Your task to perform on an android device: change keyboard looks Image 0: 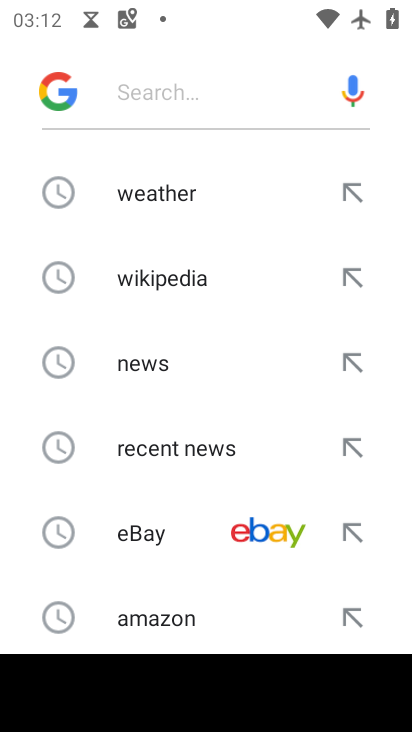
Step 0: press home button
Your task to perform on an android device: change keyboard looks Image 1: 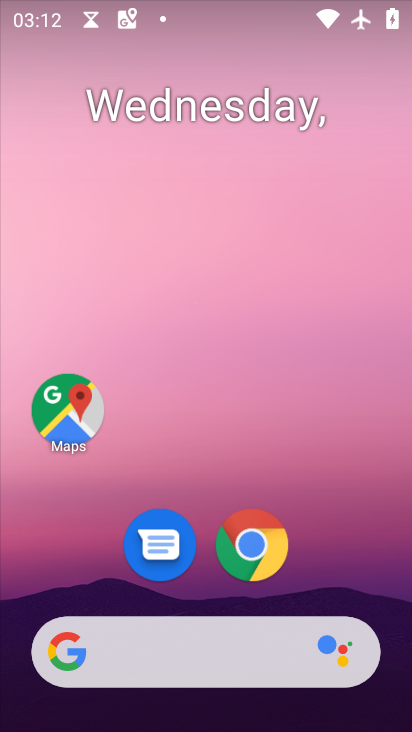
Step 1: drag from (166, 658) to (291, 113)
Your task to perform on an android device: change keyboard looks Image 2: 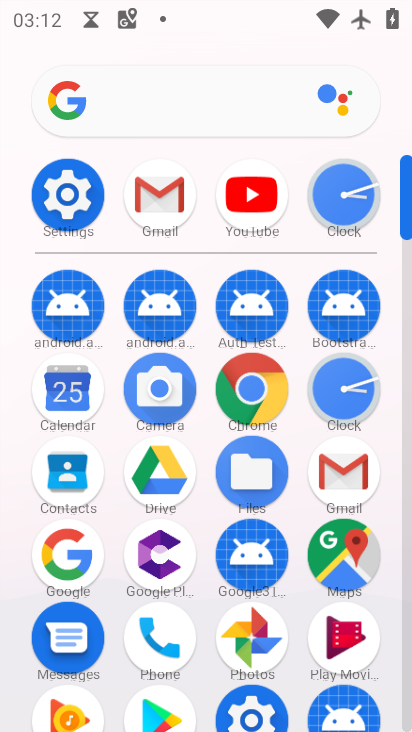
Step 2: click (74, 197)
Your task to perform on an android device: change keyboard looks Image 3: 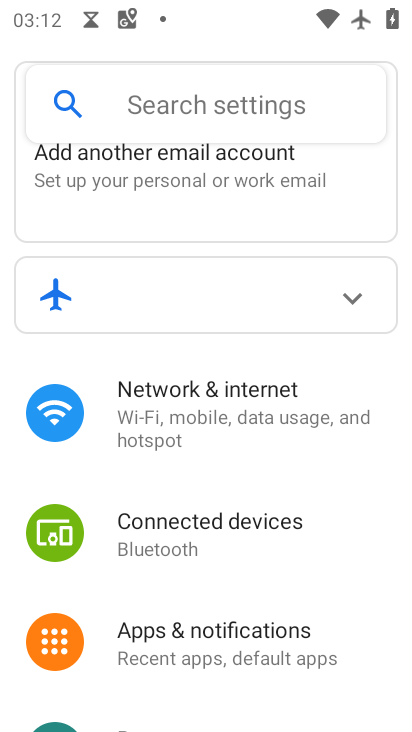
Step 3: drag from (238, 660) to (332, 114)
Your task to perform on an android device: change keyboard looks Image 4: 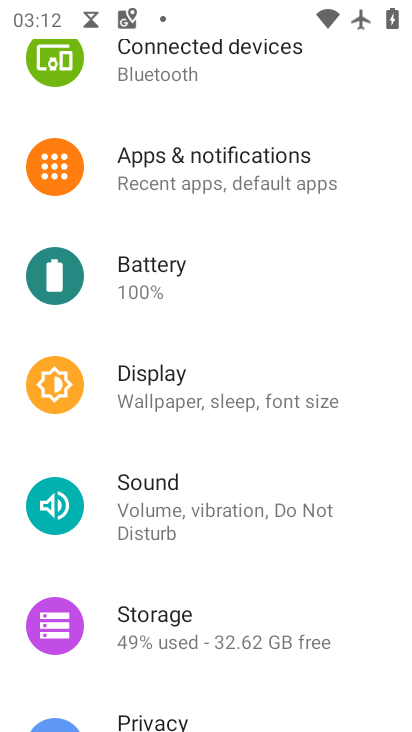
Step 4: drag from (207, 686) to (344, 243)
Your task to perform on an android device: change keyboard looks Image 5: 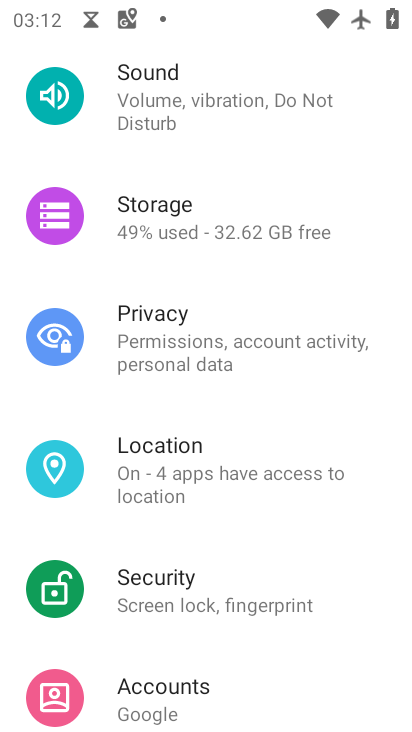
Step 5: drag from (202, 664) to (380, 186)
Your task to perform on an android device: change keyboard looks Image 6: 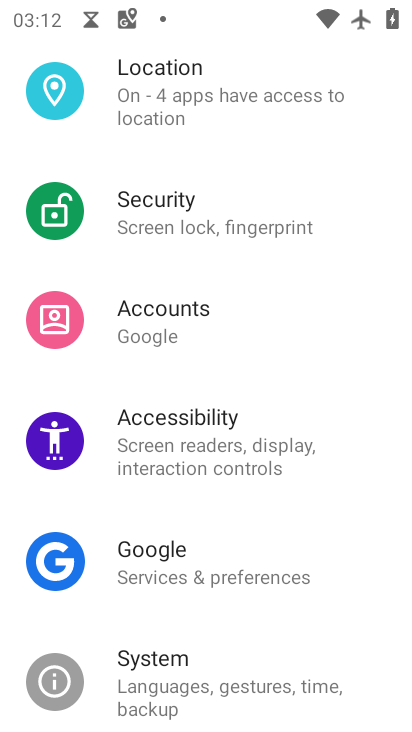
Step 6: click (187, 678)
Your task to perform on an android device: change keyboard looks Image 7: 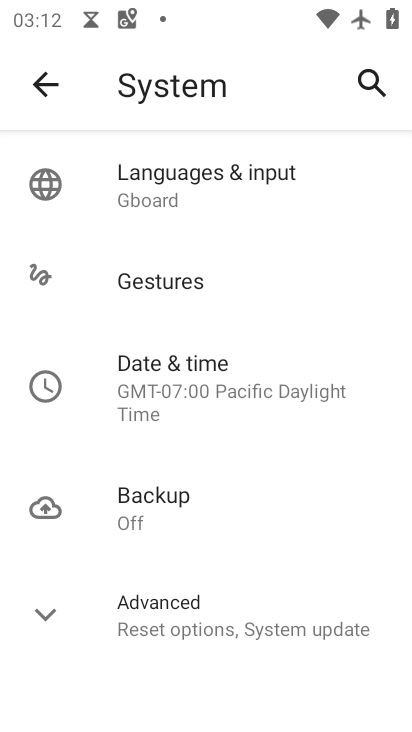
Step 7: click (203, 179)
Your task to perform on an android device: change keyboard looks Image 8: 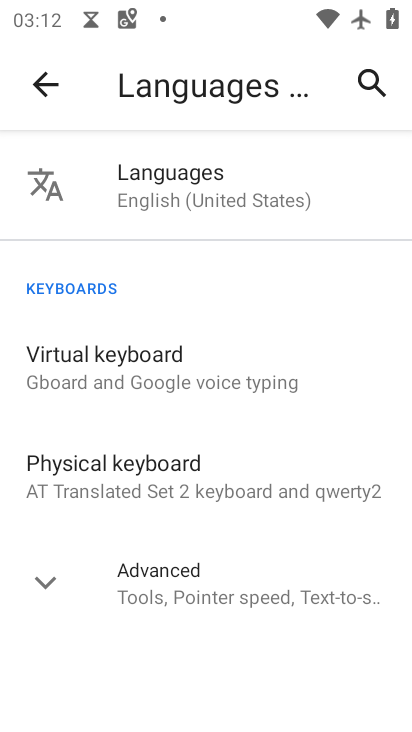
Step 8: click (117, 357)
Your task to perform on an android device: change keyboard looks Image 9: 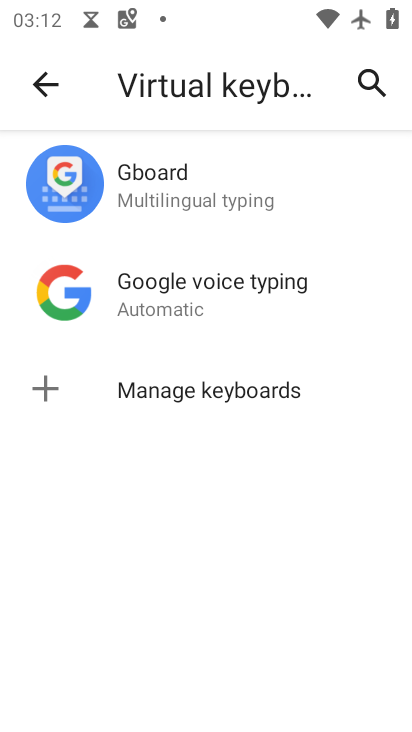
Step 9: click (173, 200)
Your task to perform on an android device: change keyboard looks Image 10: 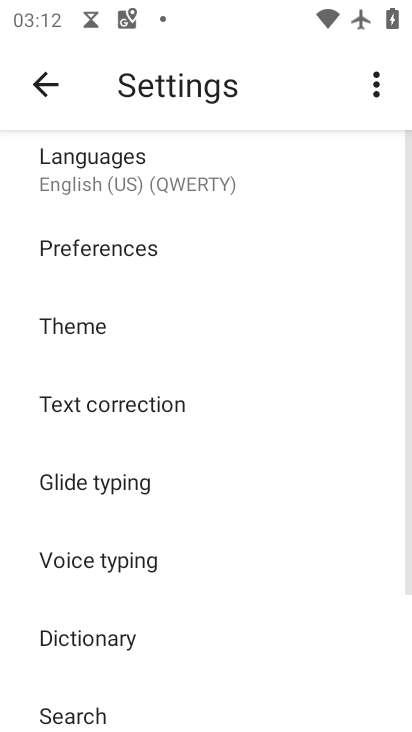
Step 10: click (88, 327)
Your task to perform on an android device: change keyboard looks Image 11: 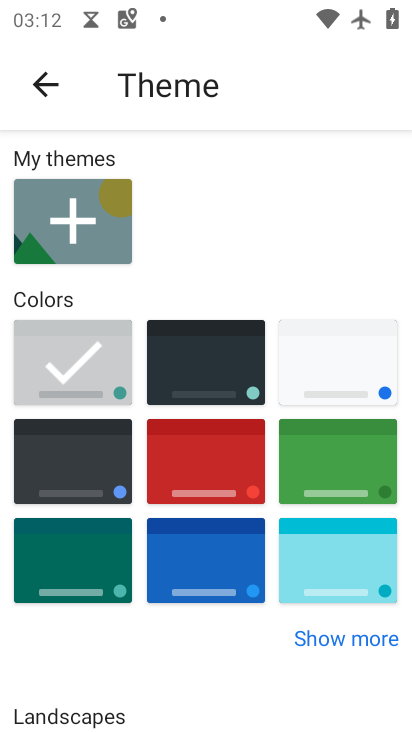
Step 11: click (82, 547)
Your task to perform on an android device: change keyboard looks Image 12: 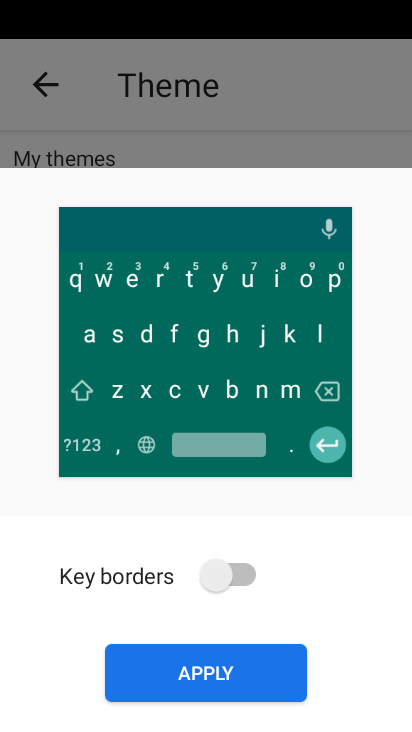
Step 12: click (213, 679)
Your task to perform on an android device: change keyboard looks Image 13: 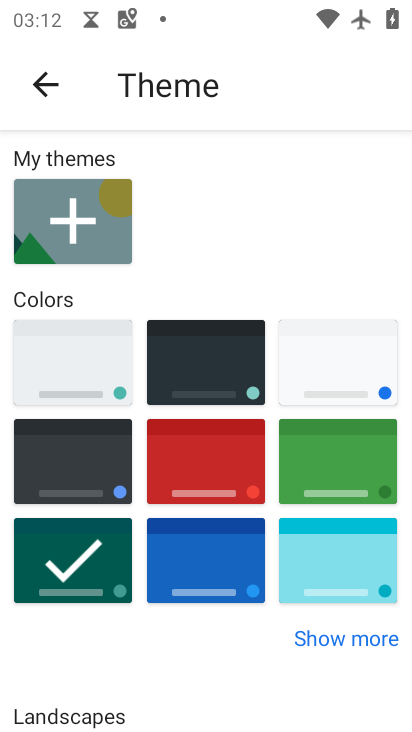
Step 13: task complete